Your task to perform on an android device: open a bookmark in the chrome app Image 0: 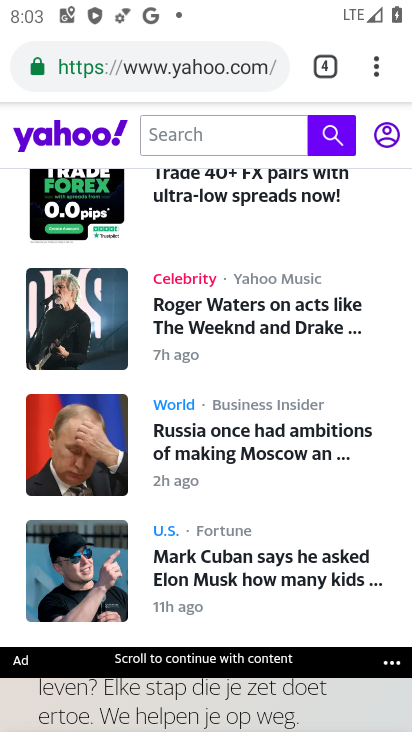
Step 0: press home button
Your task to perform on an android device: open a bookmark in the chrome app Image 1: 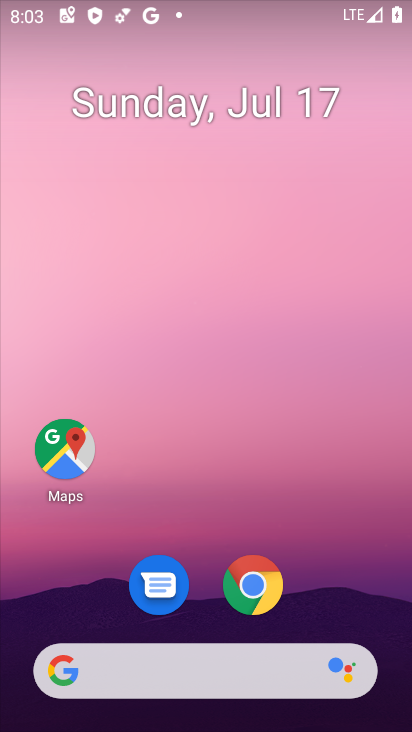
Step 1: click (247, 592)
Your task to perform on an android device: open a bookmark in the chrome app Image 2: 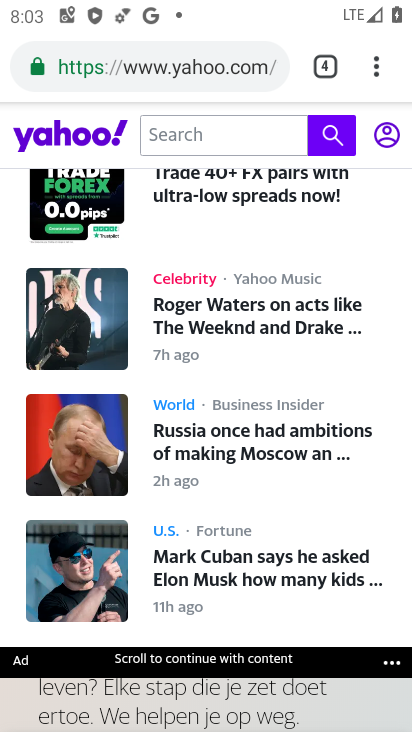
Step 2: click (377, 70)
Your task to perform on an android device: open a bookmark in the chrome app Image 3: 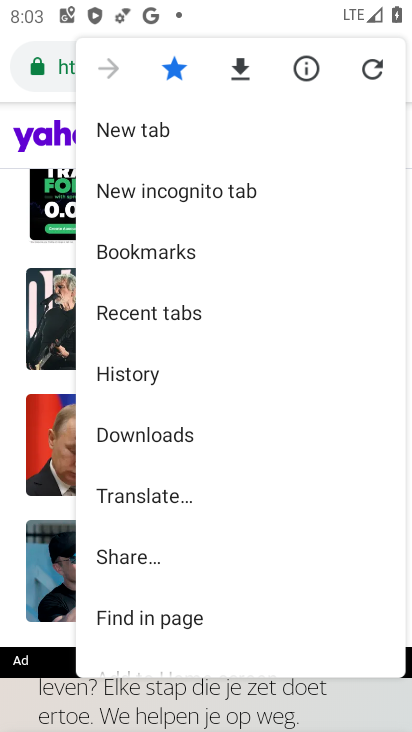
Step 3: click (175, 250)
Your task to perform on an android device: open a bookmark in the chrome app Image 4: 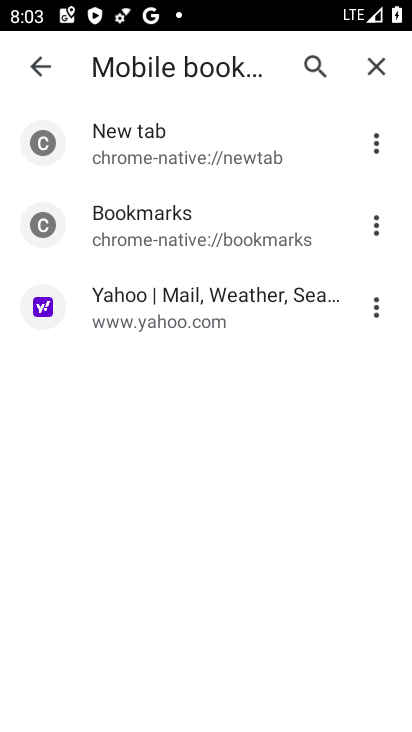
Step 4: click (176, 296)
Your task to perform on an android device: open a bookmark in the chrome app Image 5: 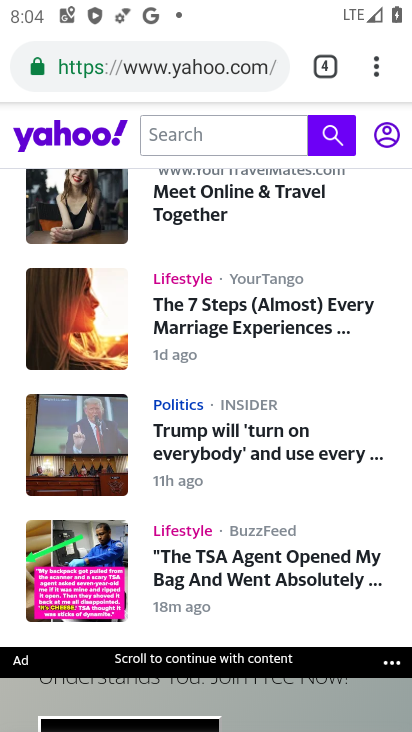
Step 5: task complete